Your task to perform on an android device: turn off sleep mode Image 0: 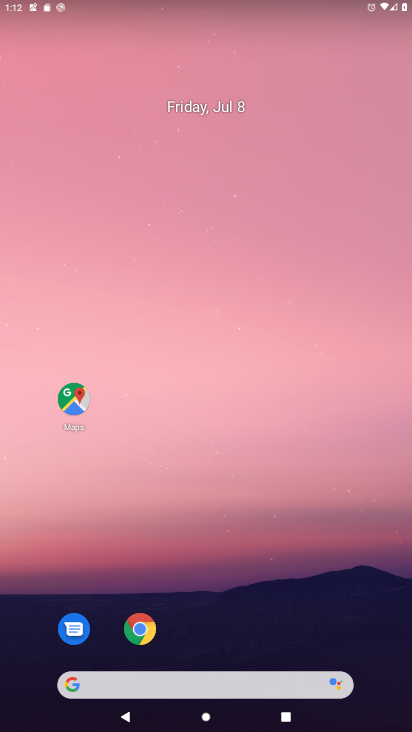
Step 0: drag from (268, 629) to (226, 14)
Your task to perform on an android device: turn off sleep mode Image 1: 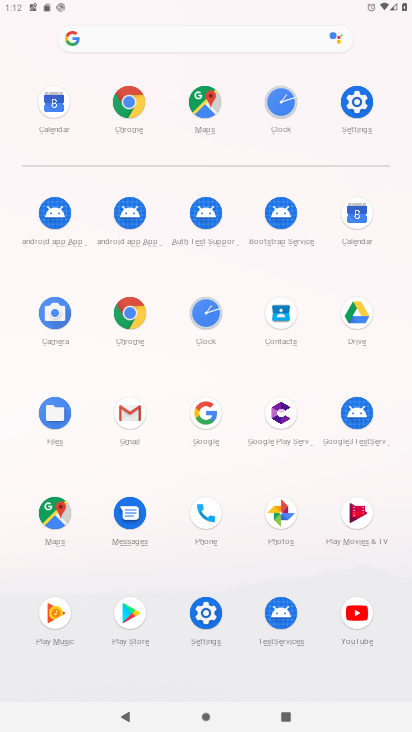
Step 1: click (352, 108)
Your task to perform on an android device: turn off sleep mode Image 2: 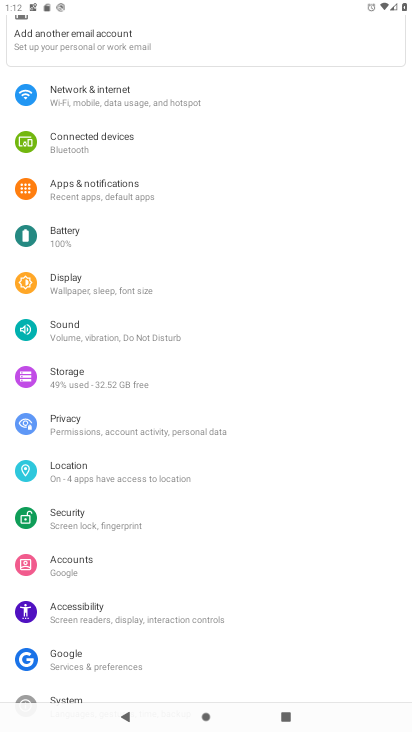
Step 2: drag from (147, 457) to (128, 203)
Your task to perform on an android device: turn off sleep mode Image 3: 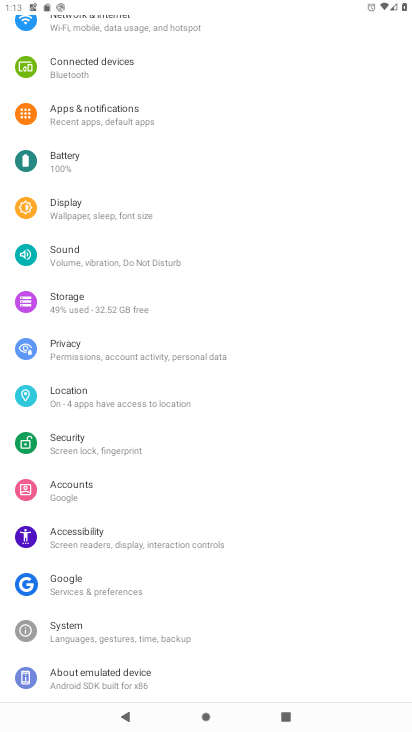
Step 3: click (136, 190)
Your task to perform on an android device: turn off sleep mode Image 4: 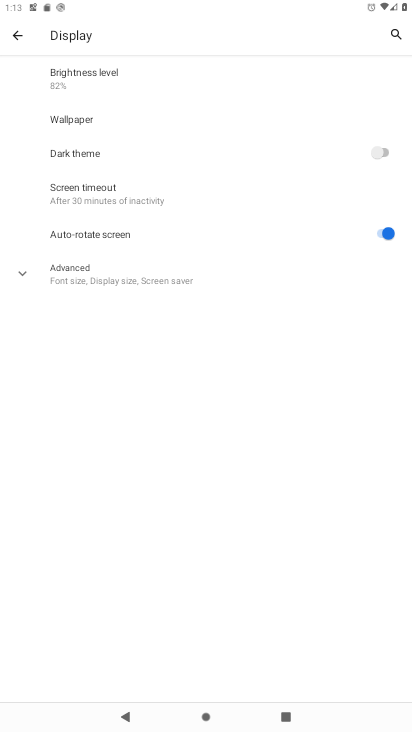
Step 4: task complete